Your task to perform on an android device: What's on my calendar tomorrow? Image 0: 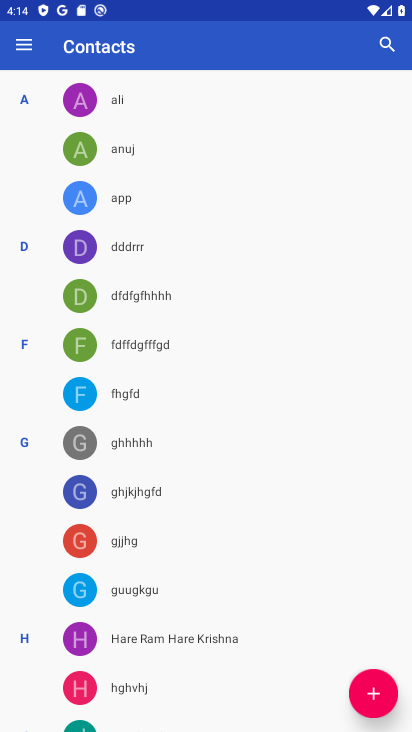
Step 0: press home button
Your task to perform on an android device: What's on my calendar tomorrow? Image 1: 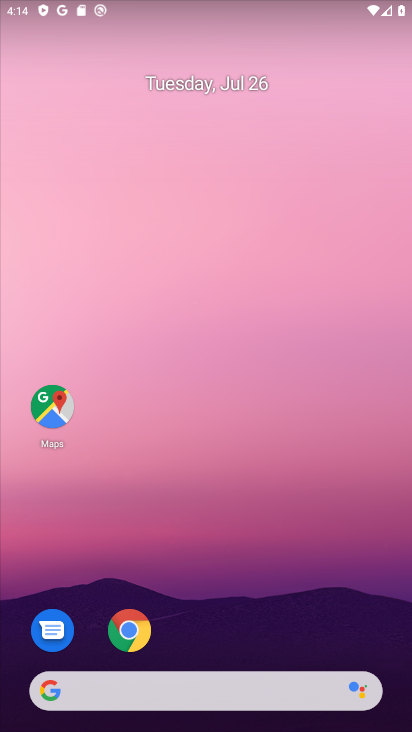
Step 1: drag from (323, 608) to (216, 2)
Your task to perform on an android device: What's on my calendar tomorrow? Image 2: 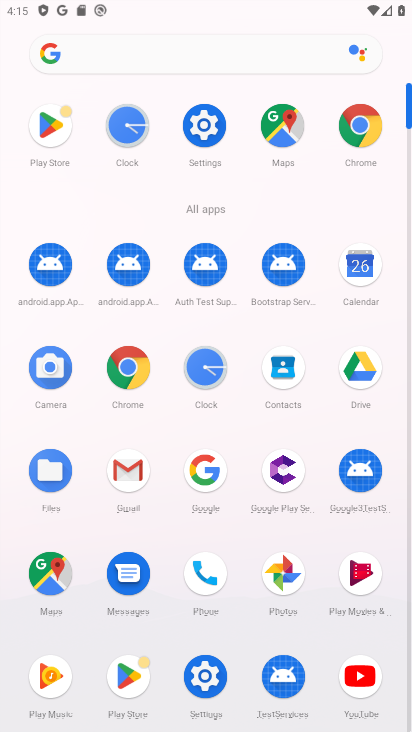
Step 2: click (359, 255)
Your task to perform on an android device: What's on my calendar tomorrow? Image 3: 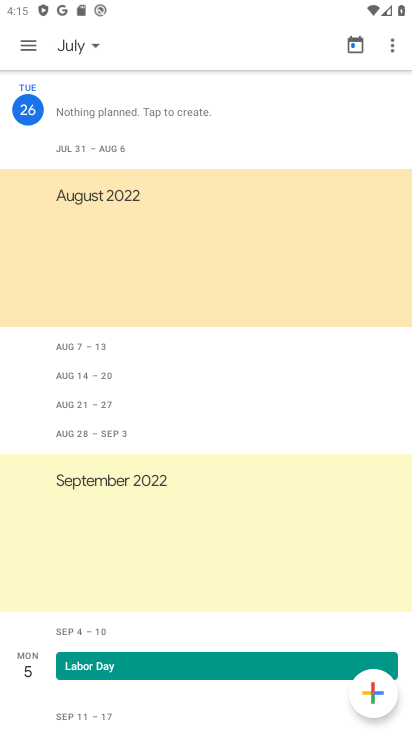
Step 3: click (64, 45)
Your task to perform on an android device: What's on my calendar tomorrow? Image 4: 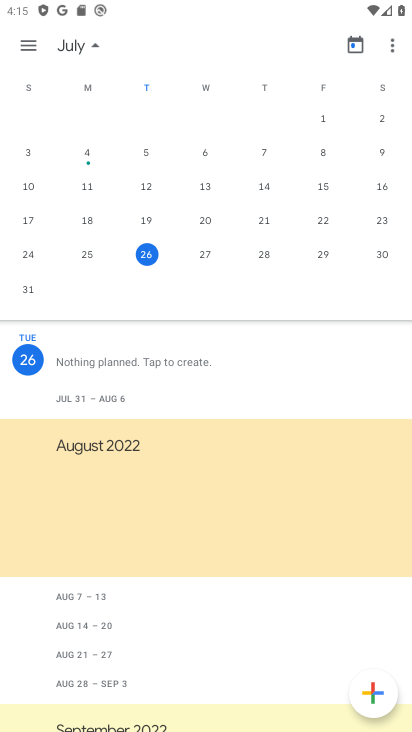
Step 4: click (212, 255)
Your task to perform on an android device: What's on my calendar tomorrow? Image 5: 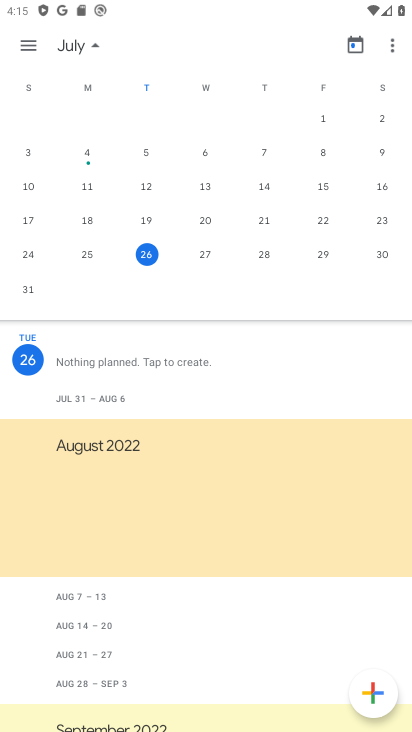
Step 5: click (207, 254)
Your task to perform on an android device: What's on my calendar tomorrow? Image 6: 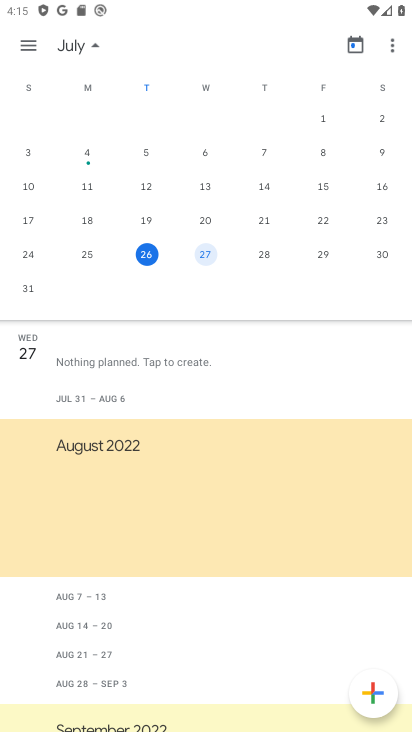
Step 6: task complete